Your task to perform on an android device: check battery use Image 0: 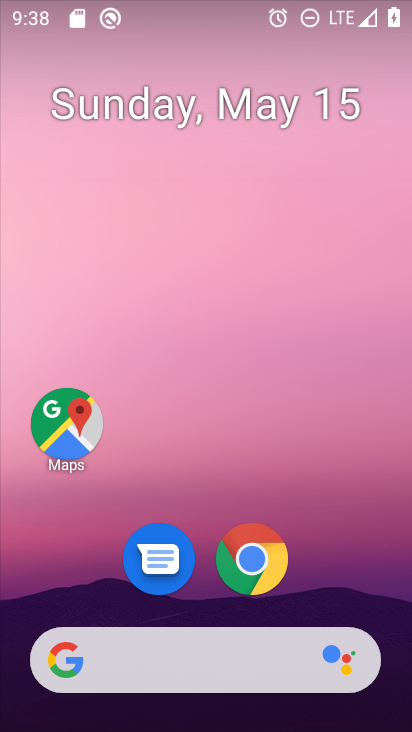
Step 0: drag from (350, 563) to (337, 114)
Your task to perform on an android device: check battery use Image 1: 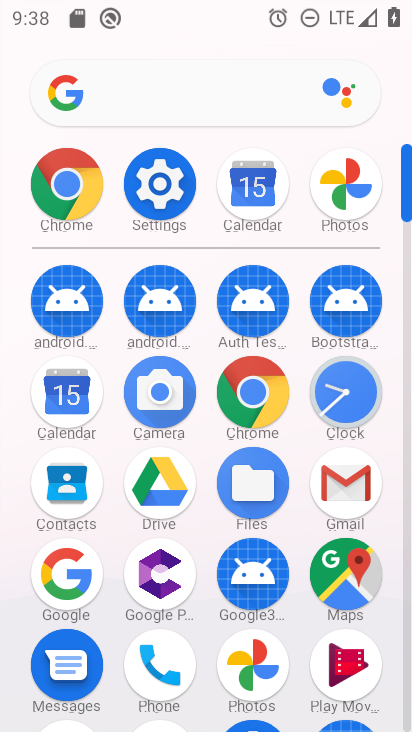
Step 1: click (160, 203)
Your task to perform on an android device: check battery use Image 2: 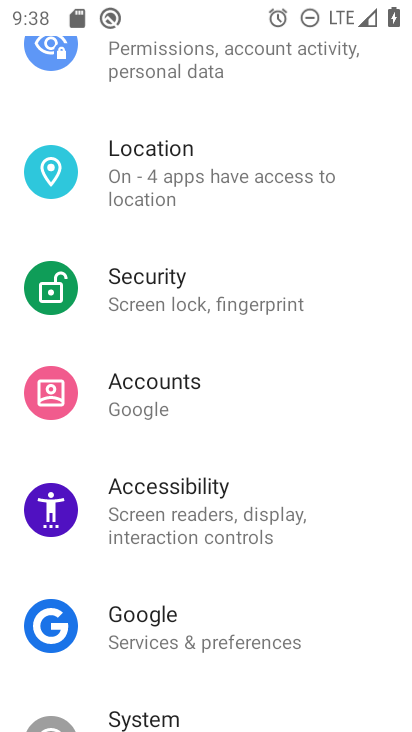
Step 2: drag from (183, 197) to (180, 594)
Your task to perform on an android device: check battery use Image 3: 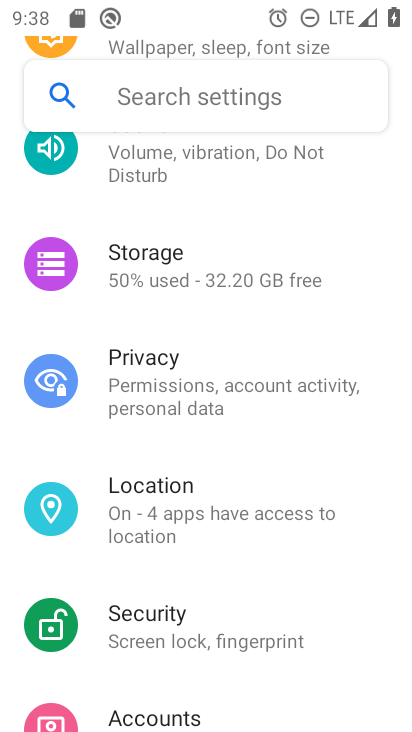
Step 3: drag from (194, 144) to (186, 553)
Your task to perform on an android device: check battery use Image 4: 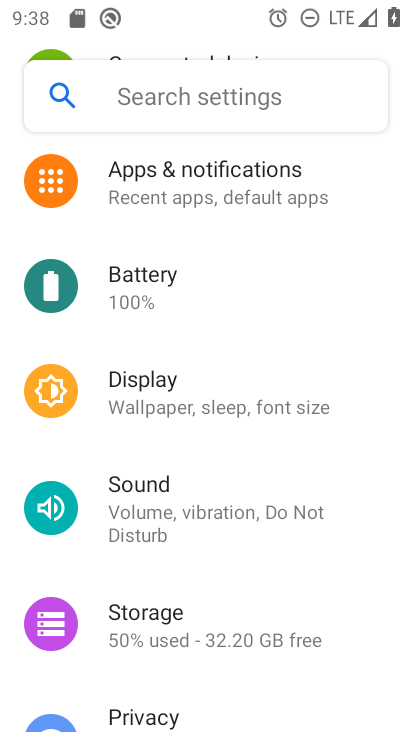
Step 4: click (179, 291)
Your task to perform on an android device: check battery use Image 5: 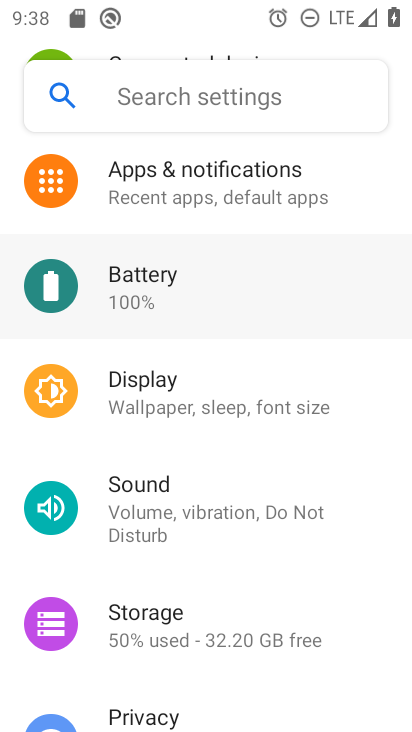
Step 5: task complete